Your task to perform on an android device: Open Google Chrome Image 0: 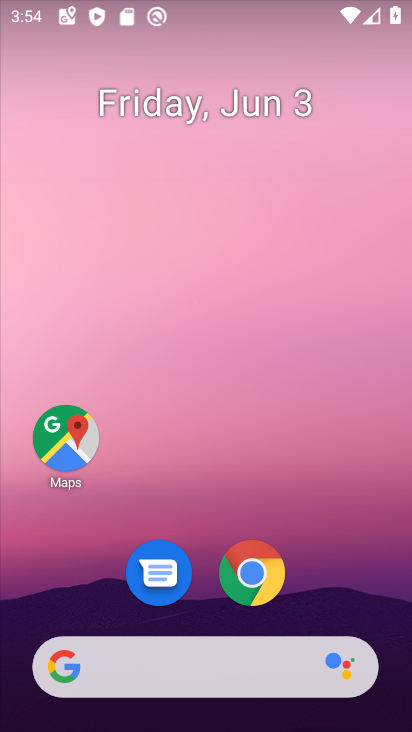
Step 0: click (243, 571)
Your task to perform on an android device: Open Google Chrome Image 1: 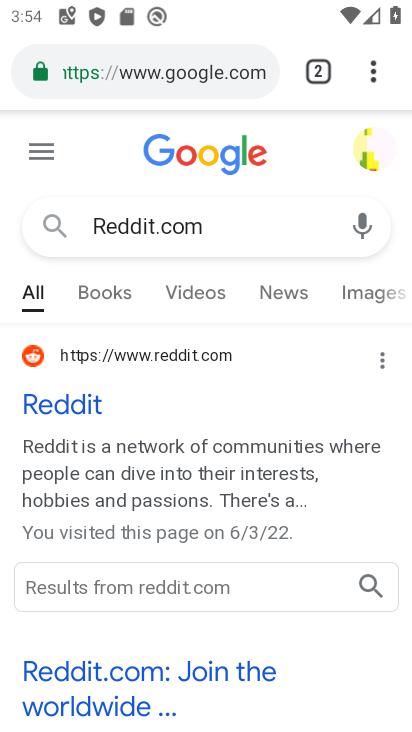
Step 1: task complete